Your task to perform on an android device: open app "Reddit" (install if not already installed) Image 0: 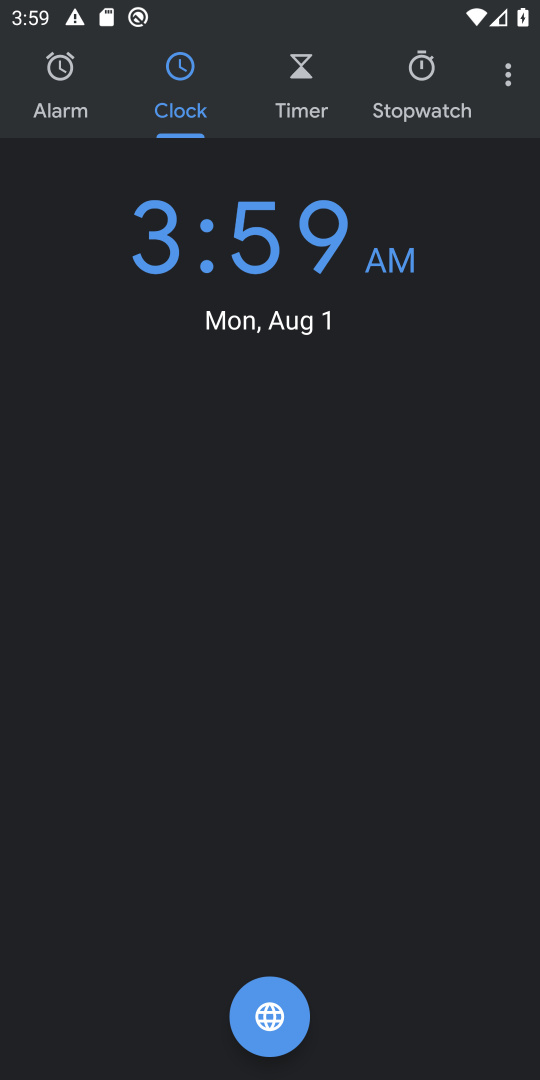
Step 0: press home button
Your task to perform on an android device: open app "Reddit" (install if not already installed) Image 1: 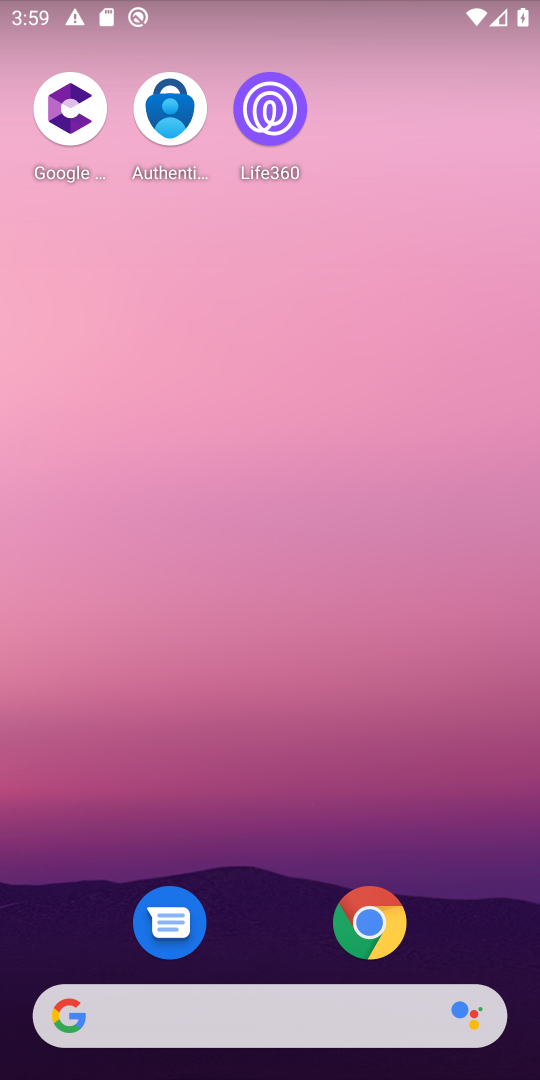
Step 1: drag from (264, 956) to (297, 6)
Your task to perform on an android device: open app "Reddit" (install if not already installed) Image 2: 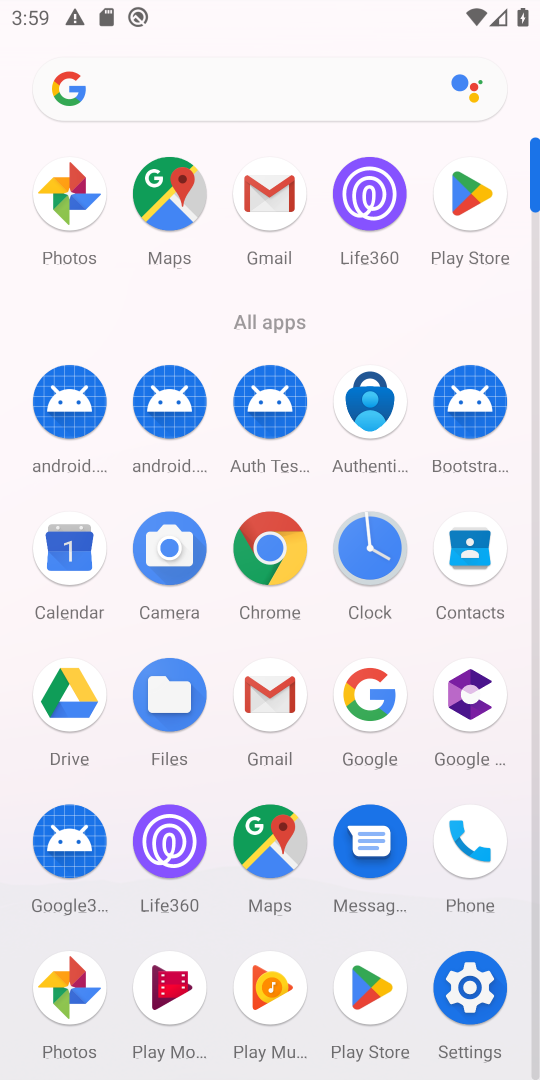
Step 2: click (464, 189)
Your task to perform on an android device: open app "Reddit" (install if not already installed) Image 3: 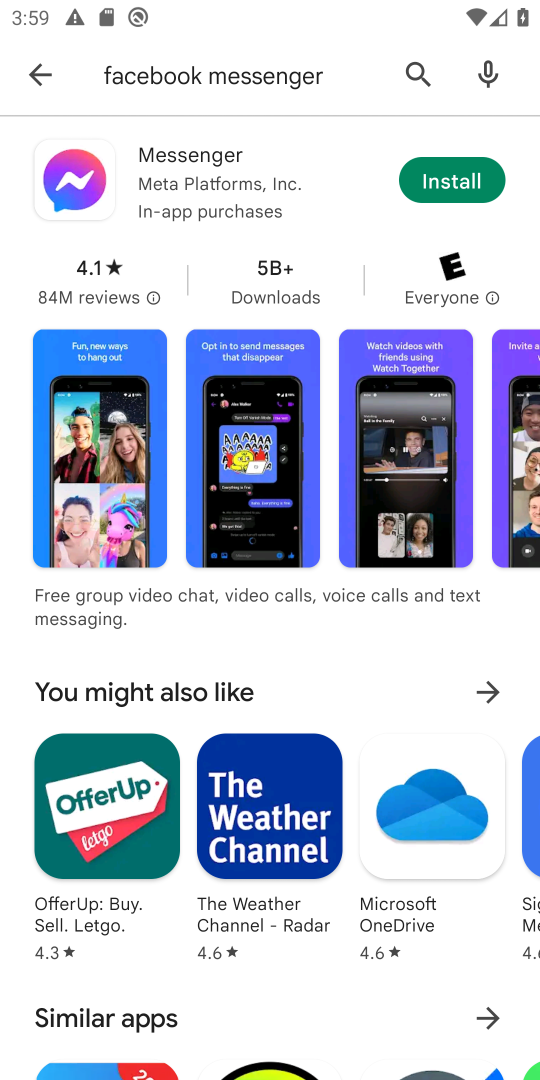
Step 3: click (425, 66)
Your task to perform on an android device: open app "Reddit" (install if not already installed) Image 4: 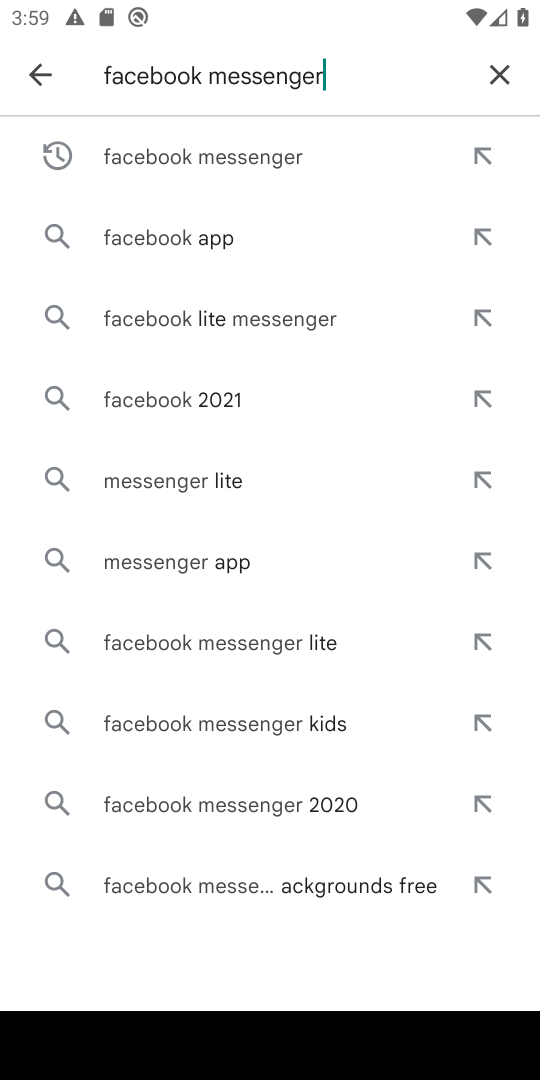
Step 4: click (488, 76)
Your task to perform on an android device: open app "Reddit" (install if not already installed) Image 5: 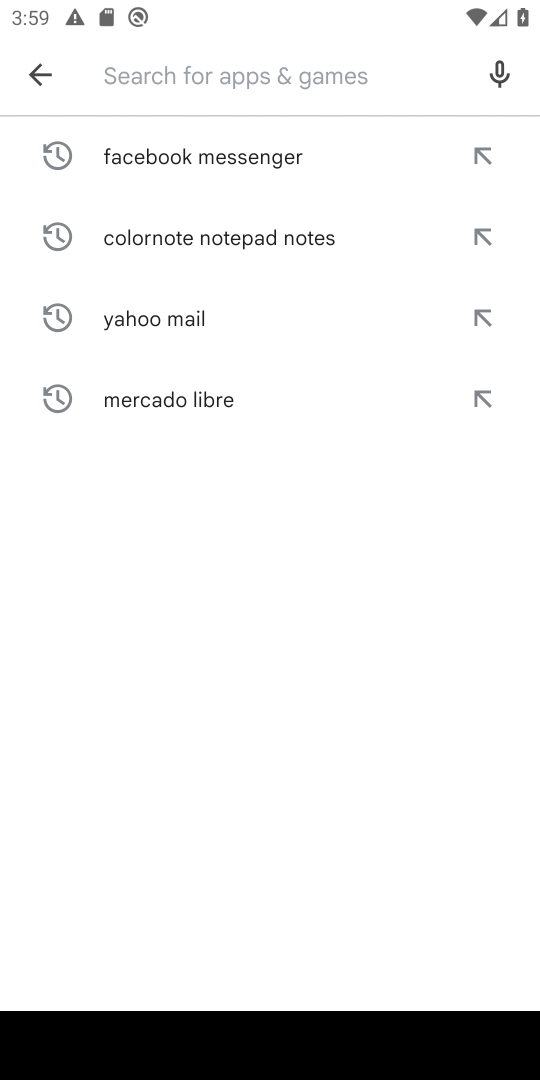
Step 5: type "Reddit"
Your task to perform on an android device: open app "Reddit" (install if not already installed) Image 6: 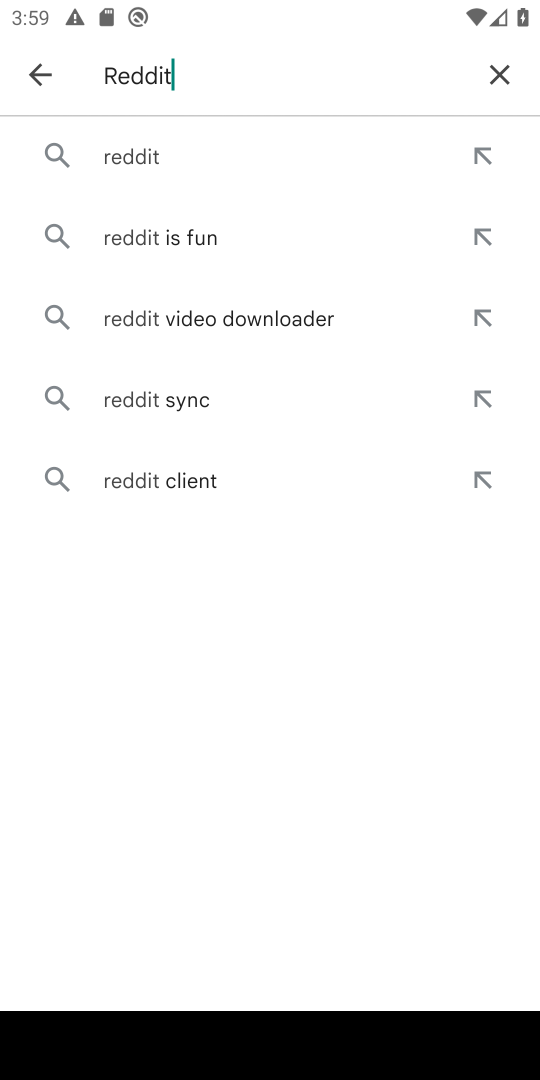
Step 6: click (120, 140)
Your task to perform on an android device: open app "Reddit" (install if not already installed) Image 7: 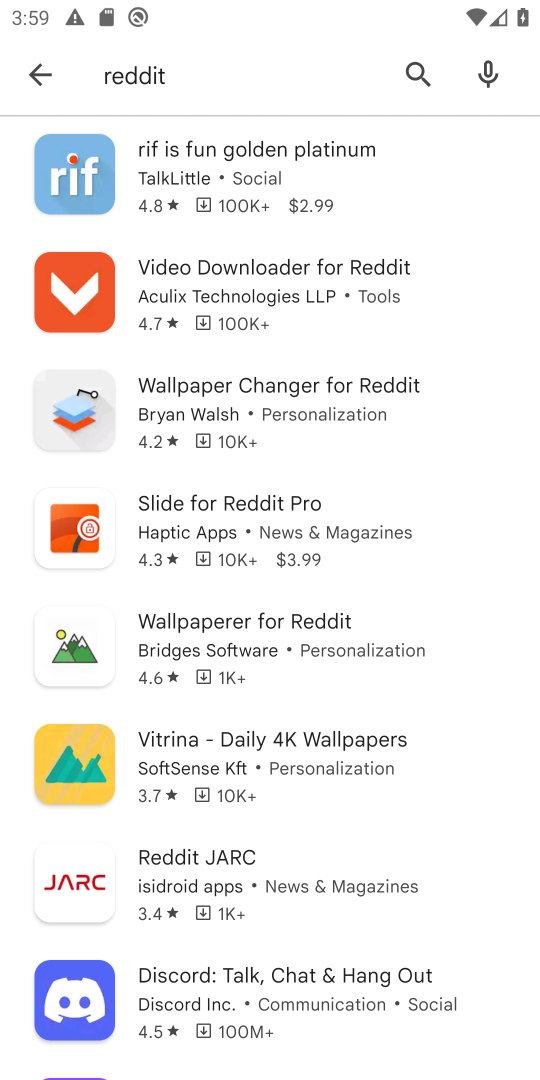
Step 7: drag from (248, 639) to (237, 221)
Your task to perform on an android device: open app "Reddit" (install if not already installed) Image 8: 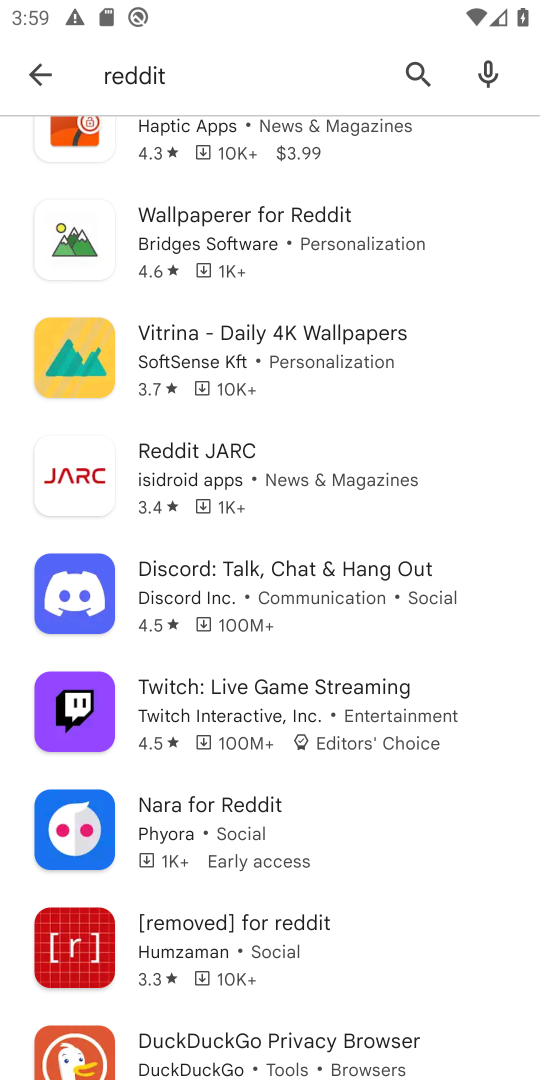
Step 8: drag from (247, 799) to (223, 235)
Your task to perform on an android device: open app "Reddit" (install if not already installed) Image 9: 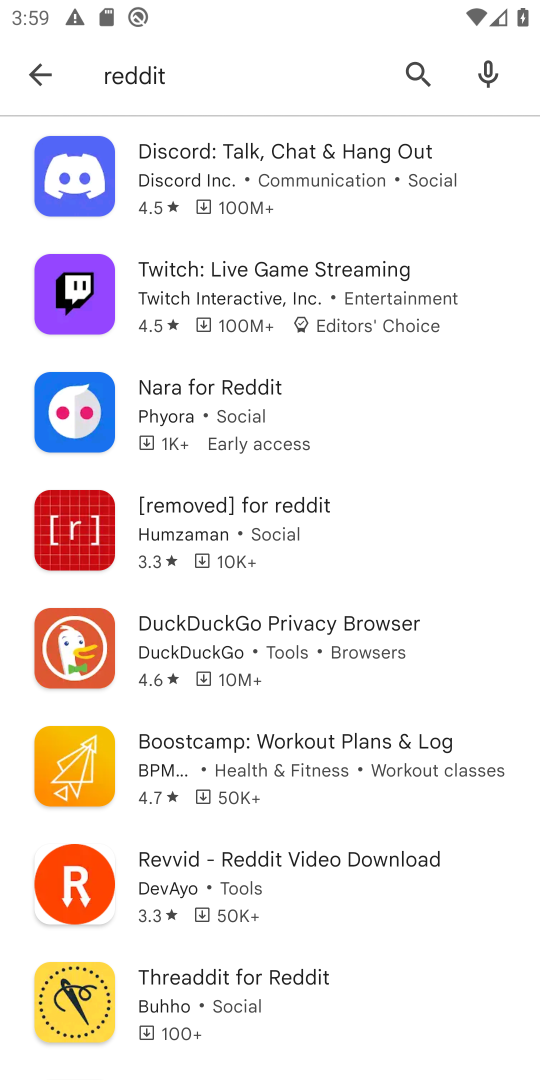
Step 9: drag from (247, 845) to (242, 235)
Your task to perform on an android device: open app "Reddit" (install if not already installed) Image 10: 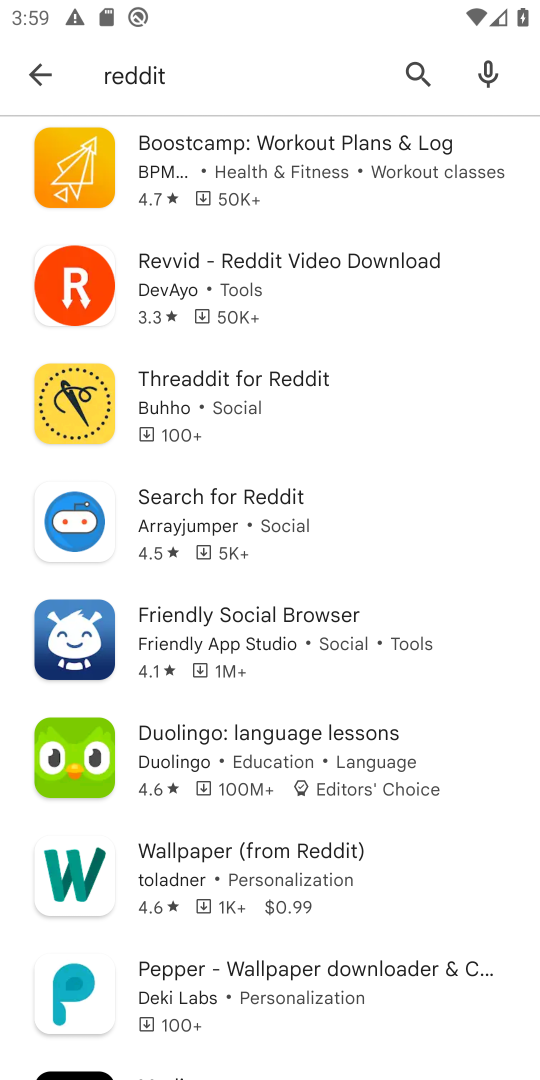
Step 10: drag from (267, 792) to (249, 377)
Your task to perform on an android device: open app "Reddit" (install if not already installed) Image 11: 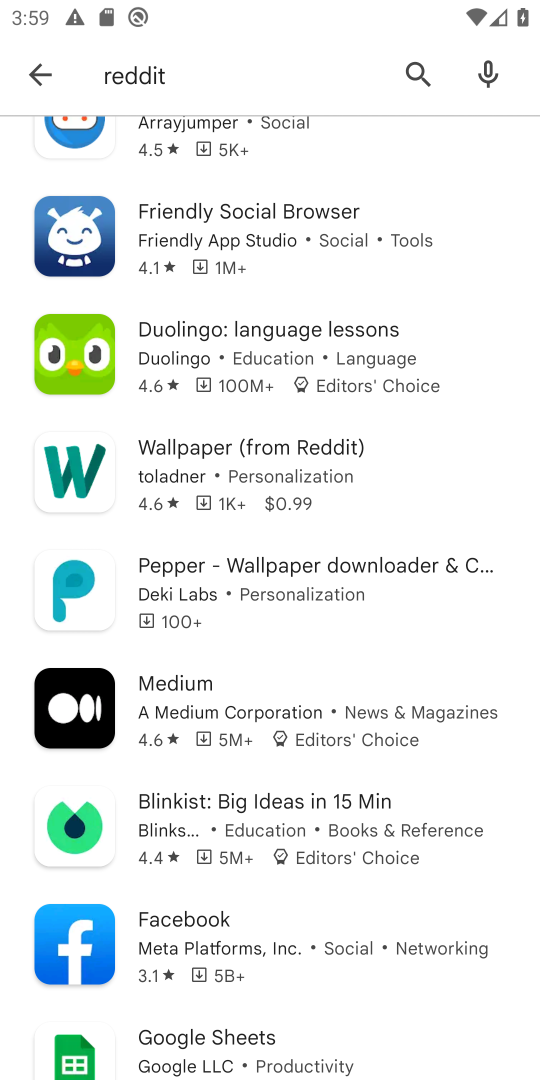
Step 11: drag from (476, 306) to (344, 1064)
Your task to perform on an android device: open app "Reddit" (install if not already installed) Image 12: 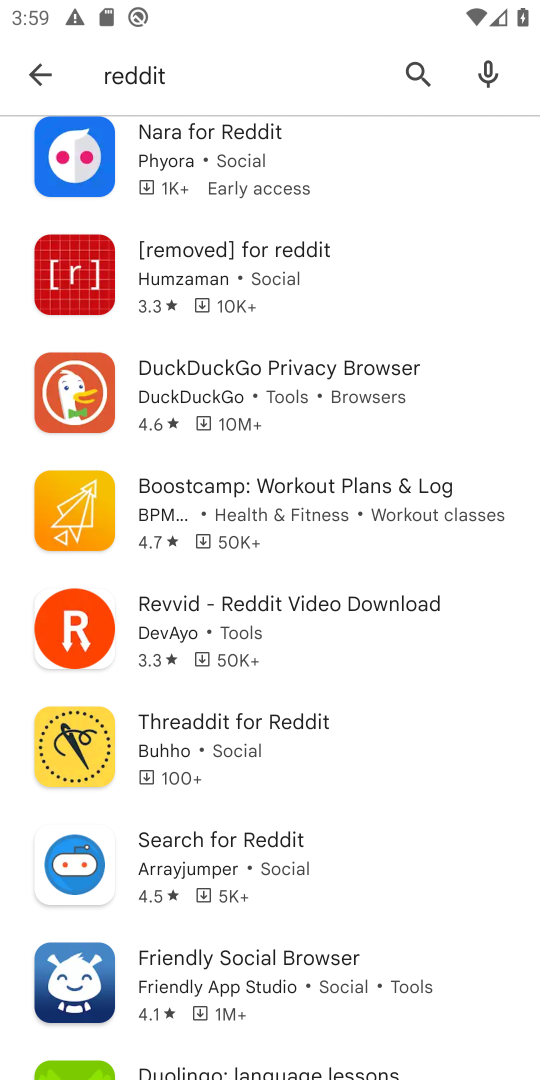
Step 12: click (184, 73)
Your task to perform on an android device: open app "Reddit" (install if not already installed) Image 13: 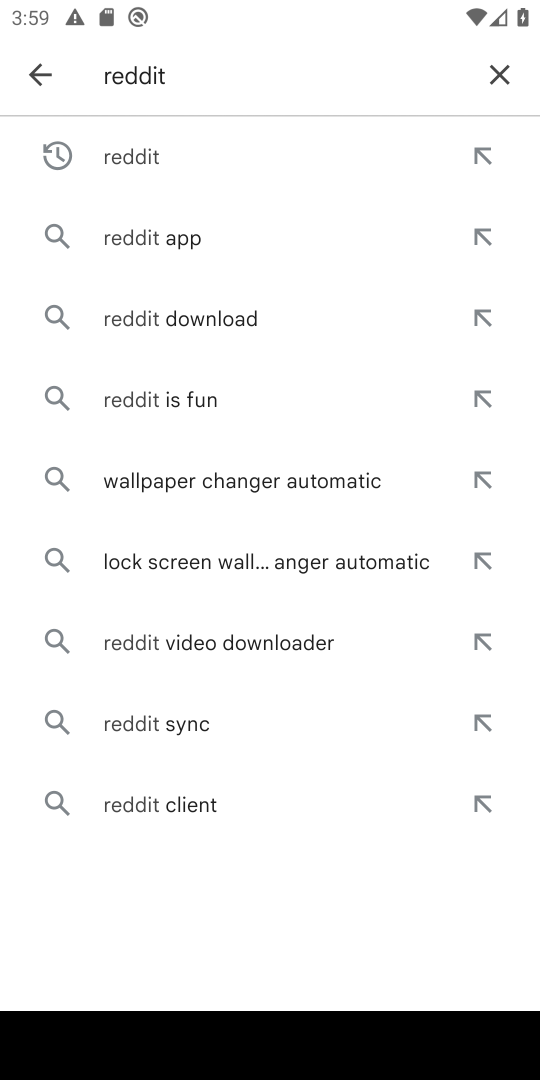
Step 13: click (191, 239)
Your task to perform on an android device: open app "Reddit" (install if not already installed) Image 14: 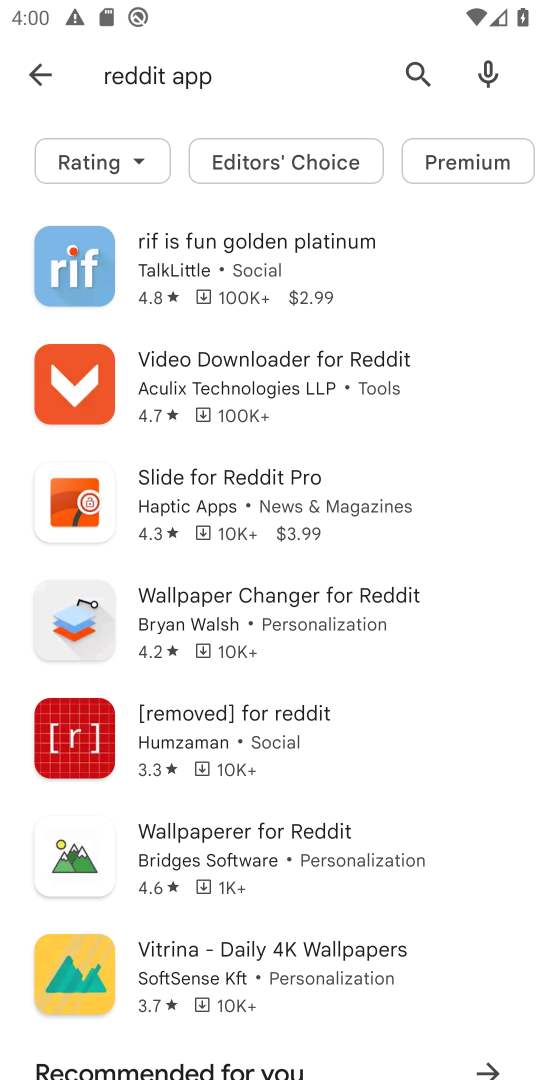
Step 14: task complete